Your task to perform on an android device: Check the weather Image 0: 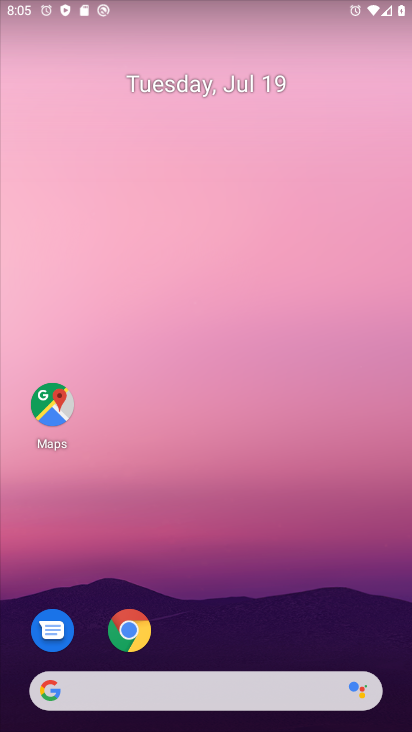
Step 0: click (207, 691)
Your task to perform on an android device: Check the weather Image 1: 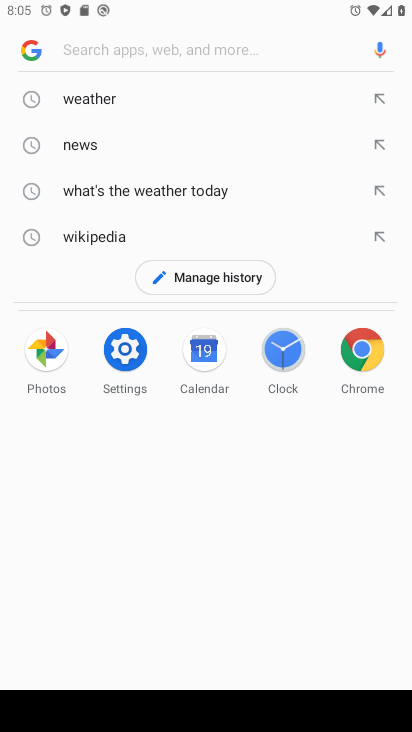
Step 1: type "Check the weather"
Your task to perform on an android device: Check the weather Image 2: 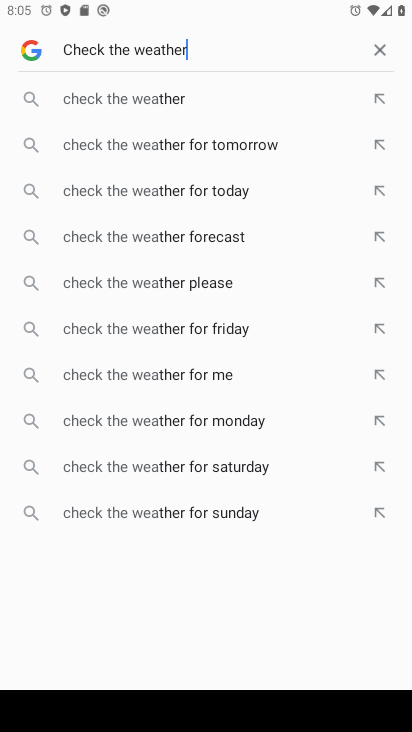
Step 2: press enter
Your task to perform on an android device: Check the weather Image 3: 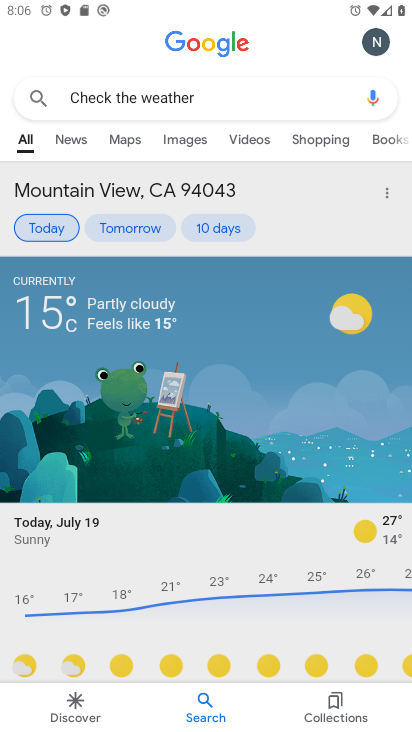
Step 3: task complete